Your task to perform on an android device: Open my contact list Image 0: 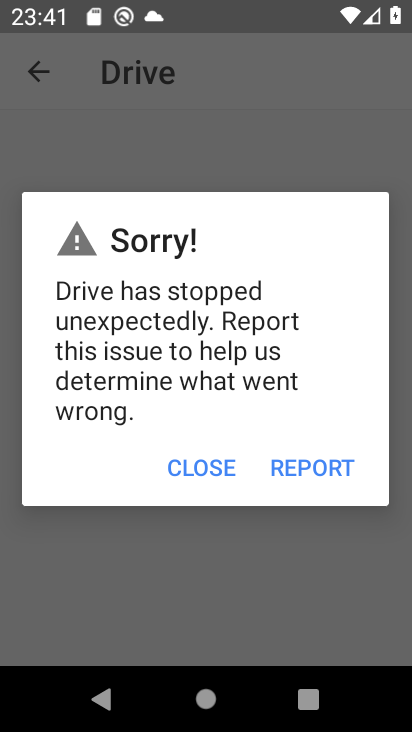
Step 0: click (224, 463)
Your task to perform on an android device: Open my contact list Image 1: 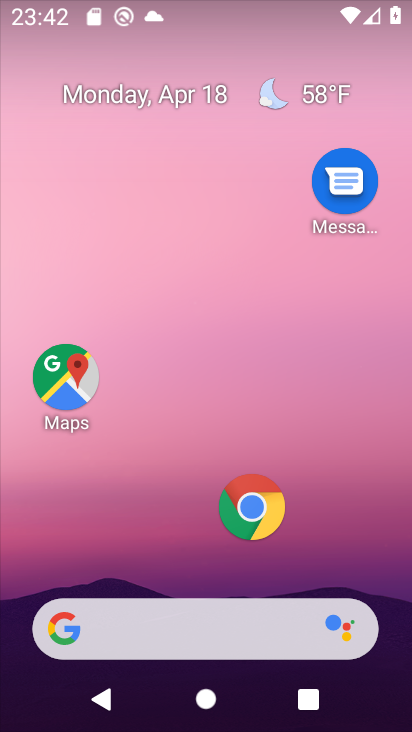
Step 1: drag from (195, 530) to (230, 45)
Your task to perform on an android device: Open my contact list Image 2: 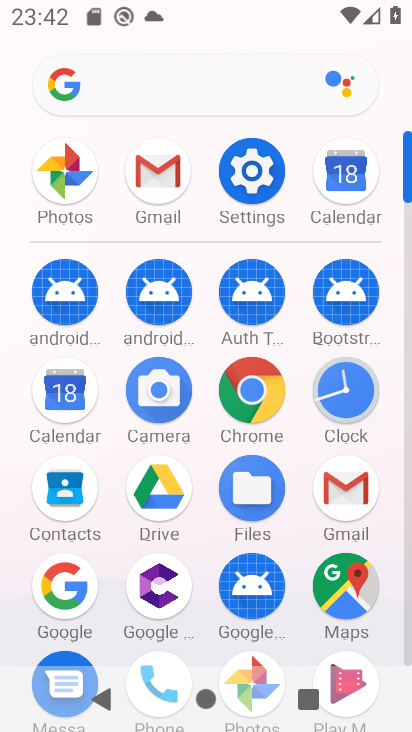
Step 2: click (80, 516)
Your task to perform on an android device: Open my contact list Image 3: 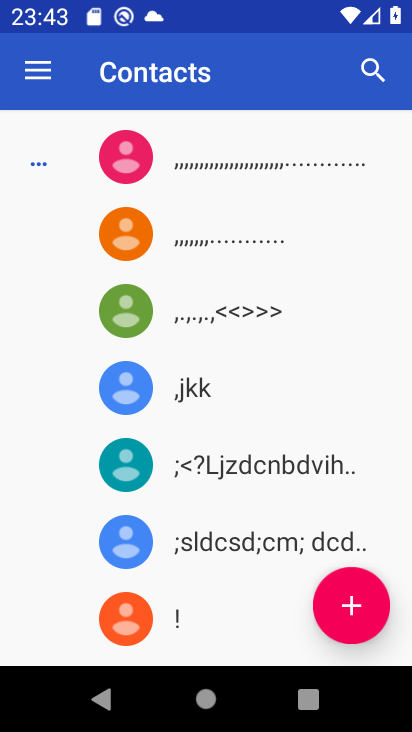
Step 3: task complete